Your task to perform on an android device: Open battery settings Image 0: 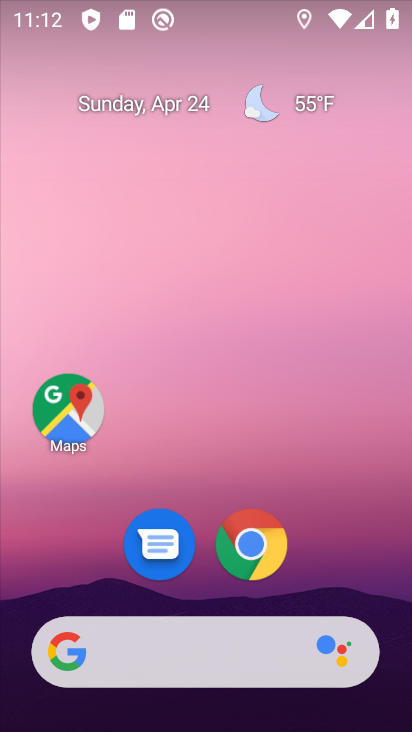
Step 0: drag from (335, 547) to (154, 65)
Your task to perform on an android device: Open battery settings Image 1: 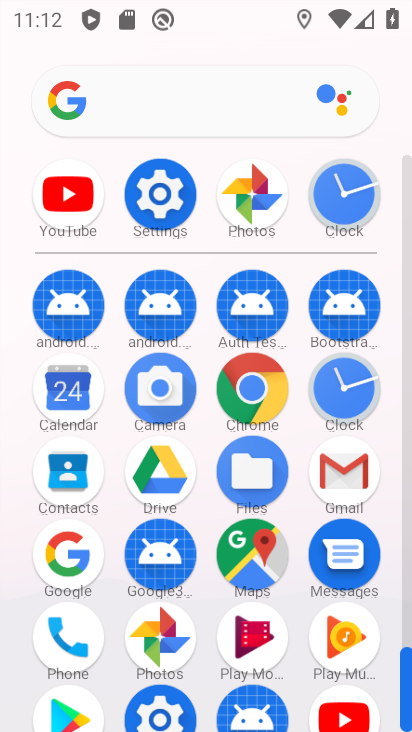
Step 1: click (158, 171)
Your task to perform on an android device: Open battery settings Image 2: 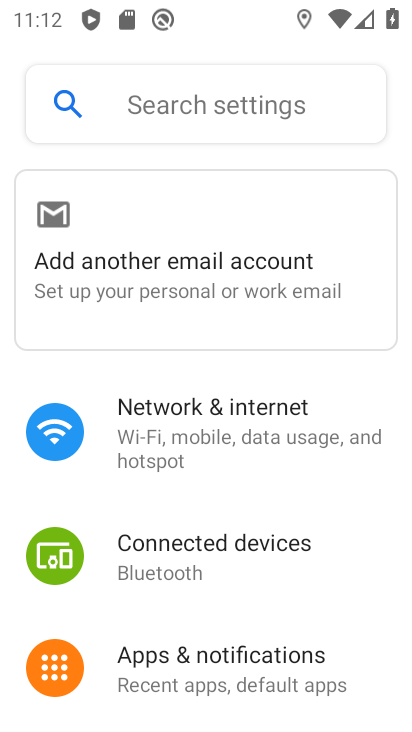
Step 2: drag from (222, 644) to (208, 181)
Your task to perform on an android device: Open battery settings Image 3: 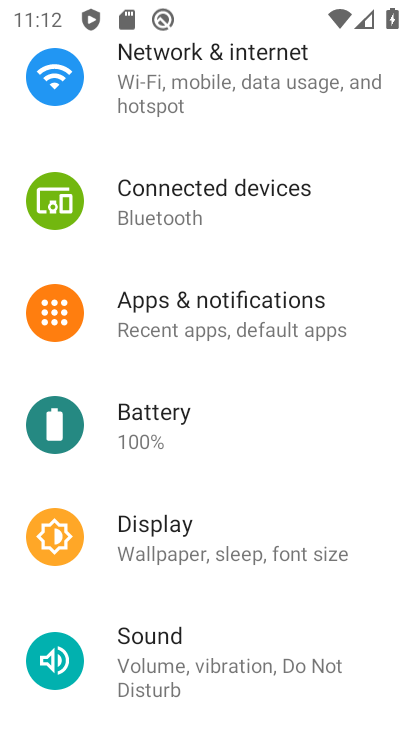
Step 3: click (126, 435)
Your task to perform on an android device: Open battery settings Image 4: 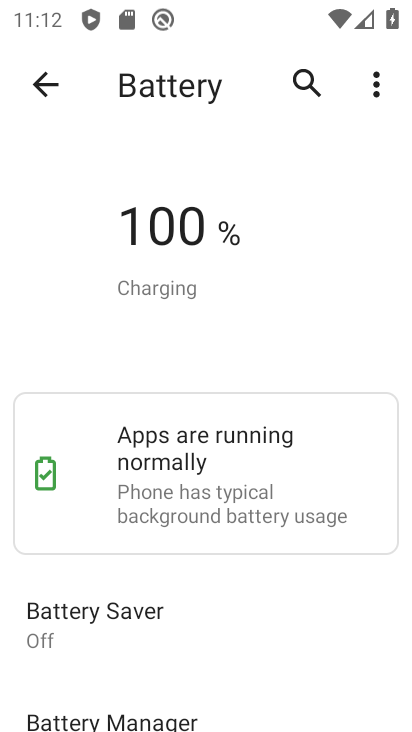
Step 4: task complete